Your task to perform on an android device: Open display settings Image 0: 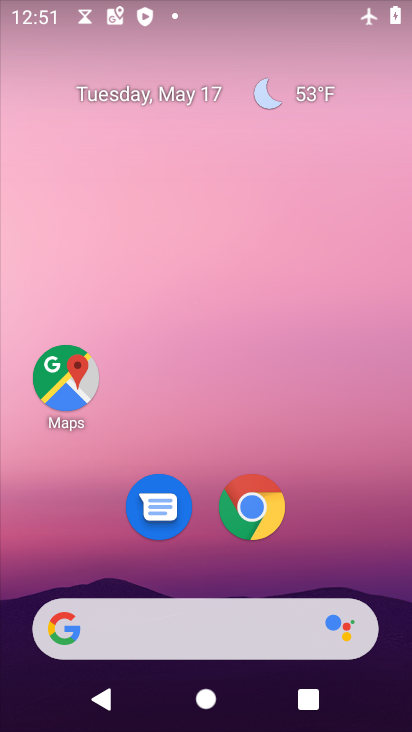
Step 0: drag from (210, 559) to (264, 48)
Your task to perform on an android device: Open display settings Image 1: 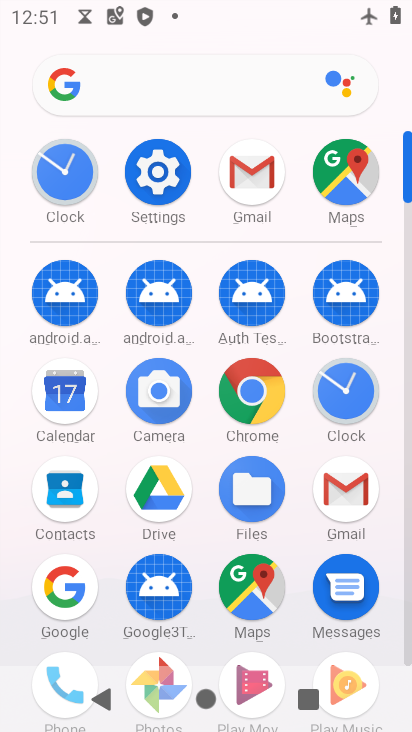
Step 1: click (146, 176)
Your task to perform on an android device: Open display settings Image 2: 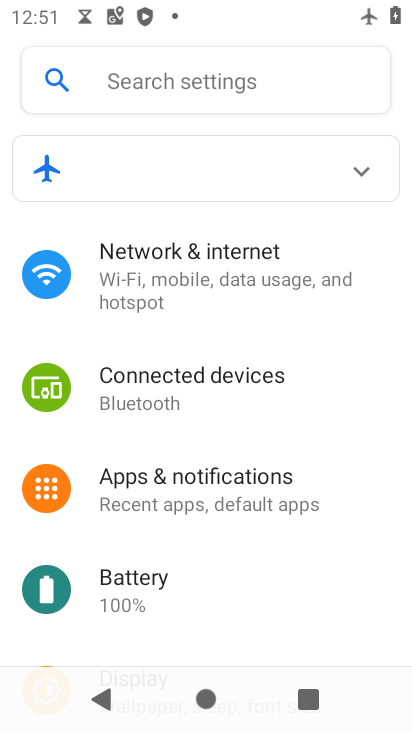
Step 2: drag from (255, 579) to (234, 366)
Your task to perform on an android device: Open display settings Image 3: 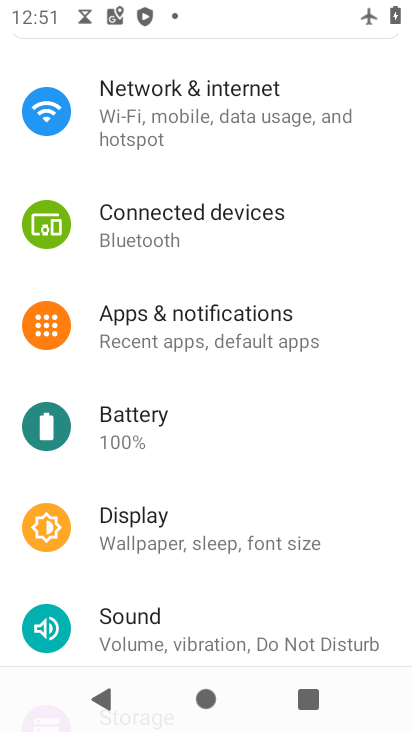
Step 3: click (245, 543)
Your task to perform on an android device: Open display settings Image 4: 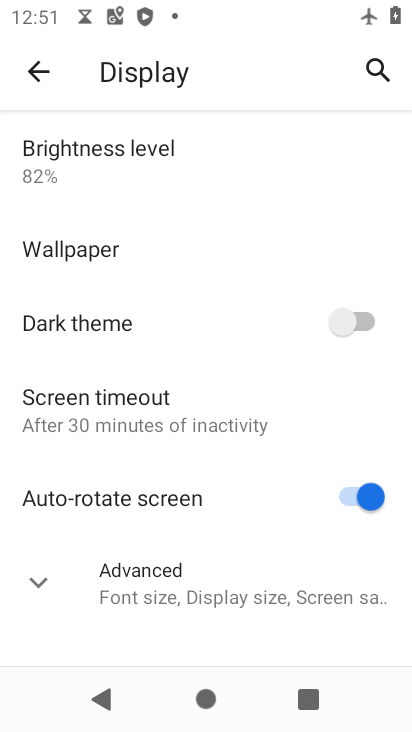
Step 4: task complete